Your task to perform on an android device: Open settings Image 0: 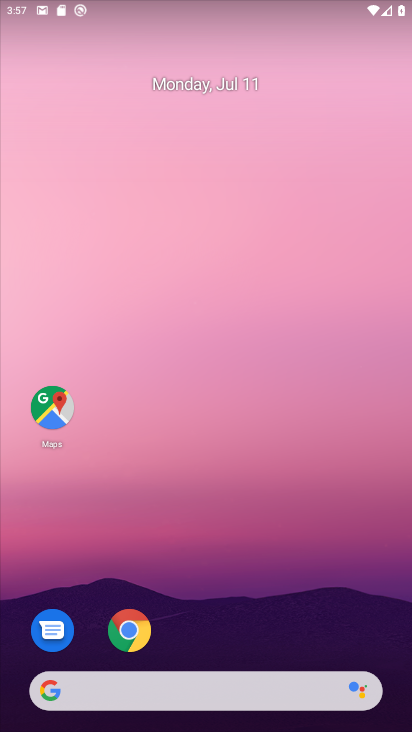
Step 0: drag from (219, 655) to (218, 104)
Your task to perform on an android device: Open settings Image 1: 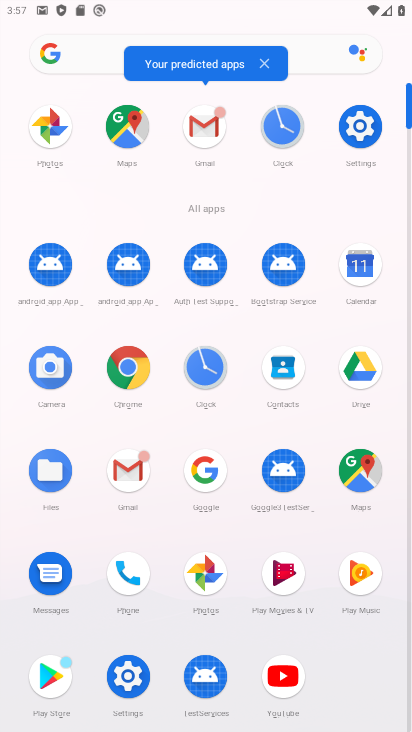
Step 1: click (360, 120)
Your task to perform on an android device: Open settings Image 2: 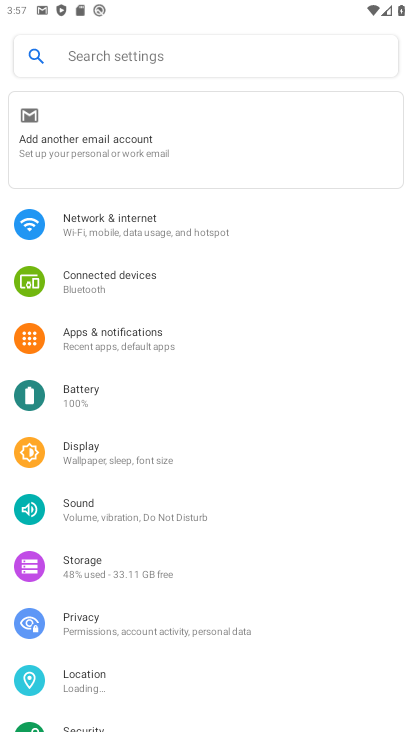
Step 2: task complete